Your task to perform on an android device: Go to Wikipedia Image 0: 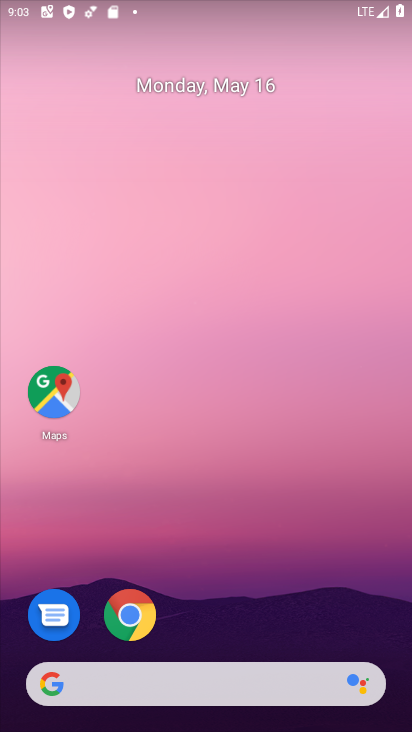
Step 0: drag from (208, 666) to (168, 324)
Your task to perform on an android device: Go to Wikipedia Image 1: 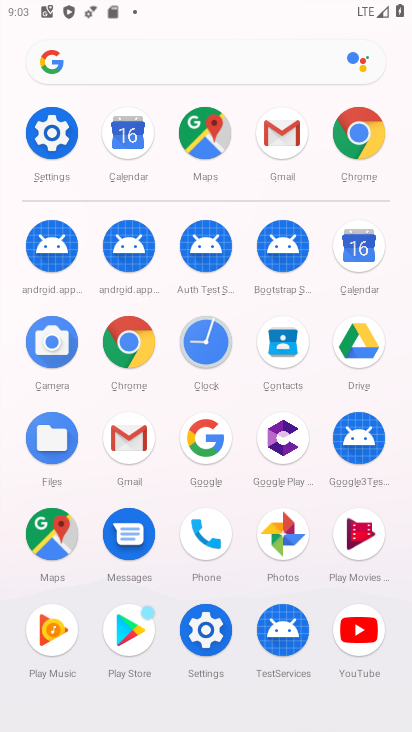
Step 1: click (353, 152)
Your task to perform on an android device: Go to Wikipedia Image 2: 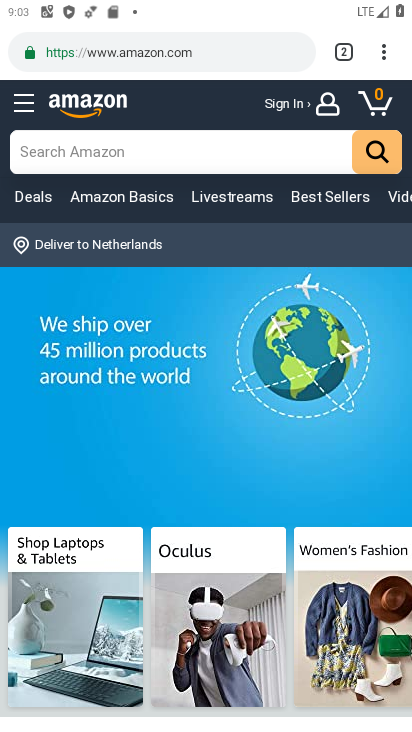
Step 2: click (251, 52)
Your task to perform on an android device: Go to Wikipedia Image 3: 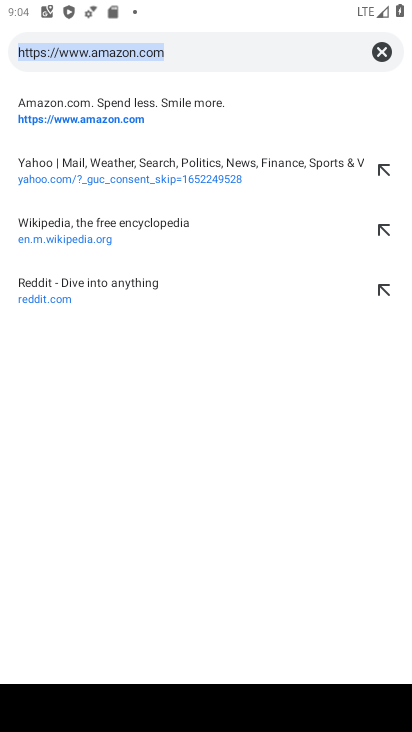
Step 3: type "wiki"
Your task to perform on an android device: Go to Wikipedia Image 4: 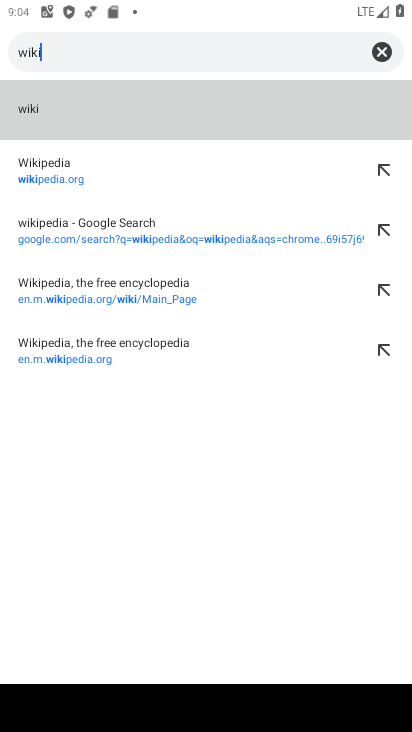
Step 4: click (138, 178)
Your task to perform on an android device: Go to Wikipedia Image 5: 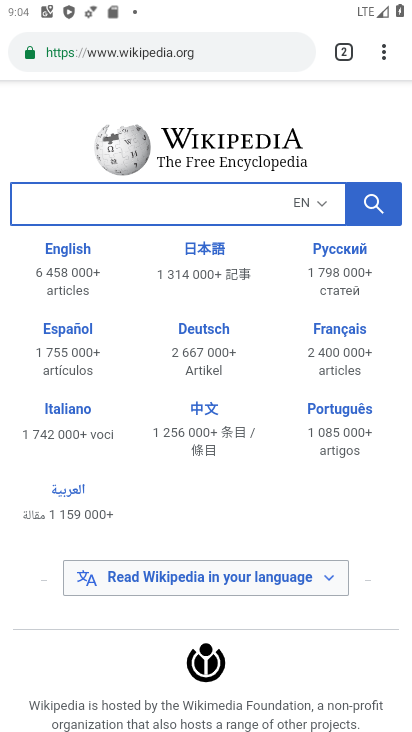
Step 5: task complete